Your task to perform on an android device: Open the map Image 0: 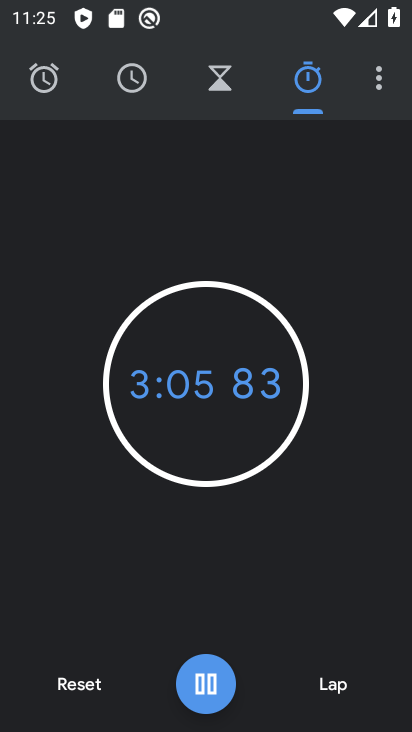
Step 0: press home button
Your task to perform on an android device: Open the map Image 1: 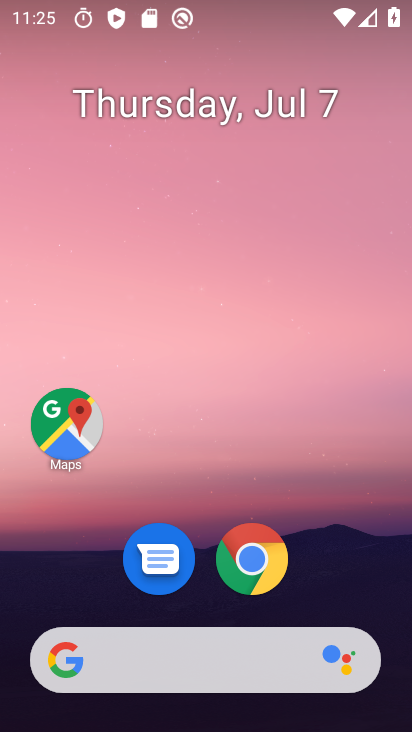
Step 1: drag from (370, 571) to (352, 64)
Your task to perform on an android device: Open the map Image 2: 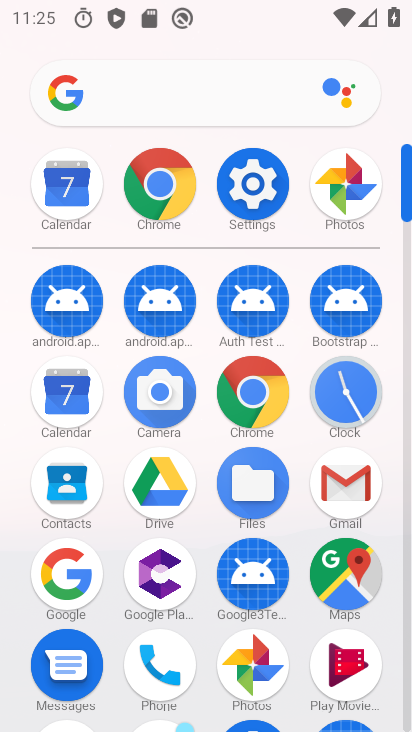
Step 2: click (342, 572)
Your task to perform on an android device: Open the map Image 3: 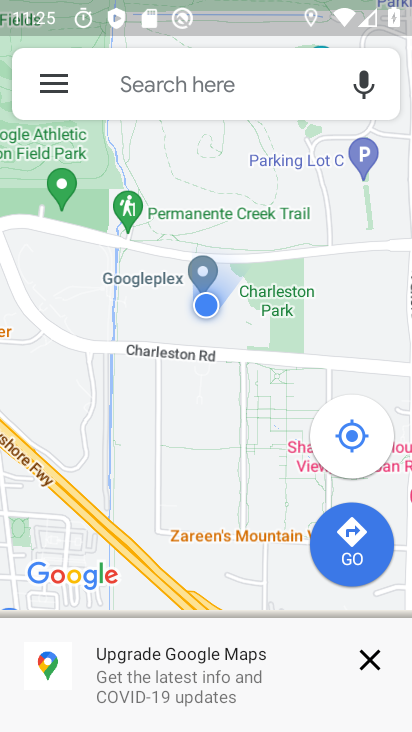
Step 3: task complete